Your task to perform on an android device: turn off picture-in-picture Image 0: 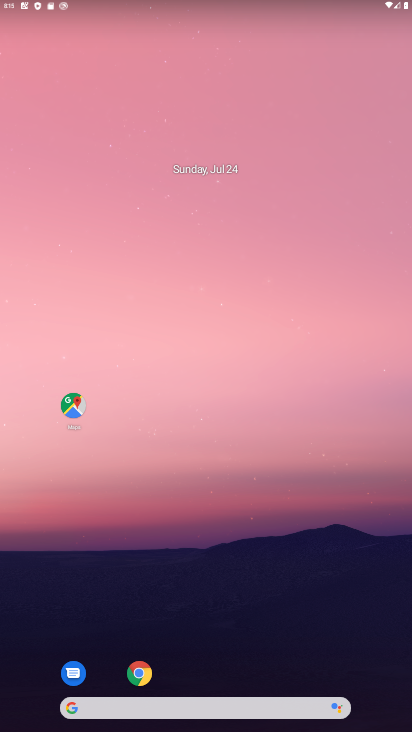
Step 0: drag from (191, 638) to (191, 293)
Your task to perform on an android device: turn off picture-in-picture Image 1: 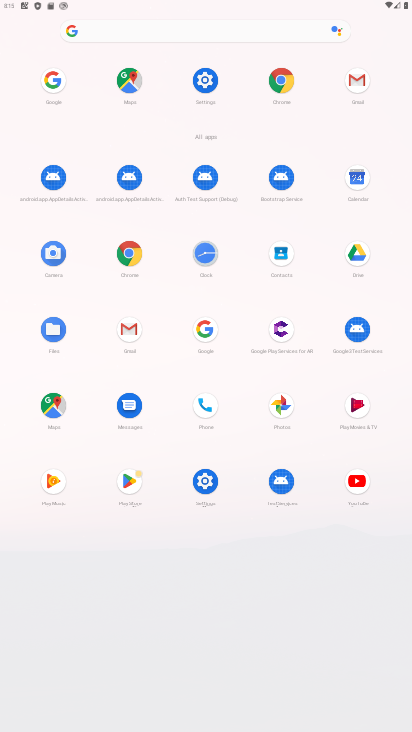
Step 1: click (201, 482)
Your task to perform on an android device: turn off picture-in-picture Image 2: 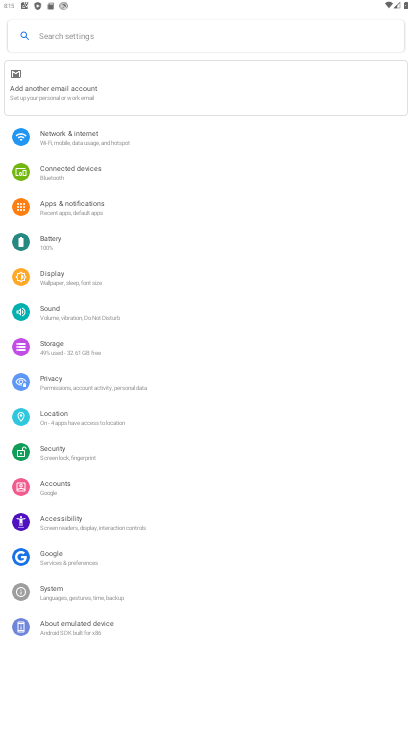
Step 2: click (67, 207)
Your task to perform on an android device: turn off picture-in-picture Image 3: 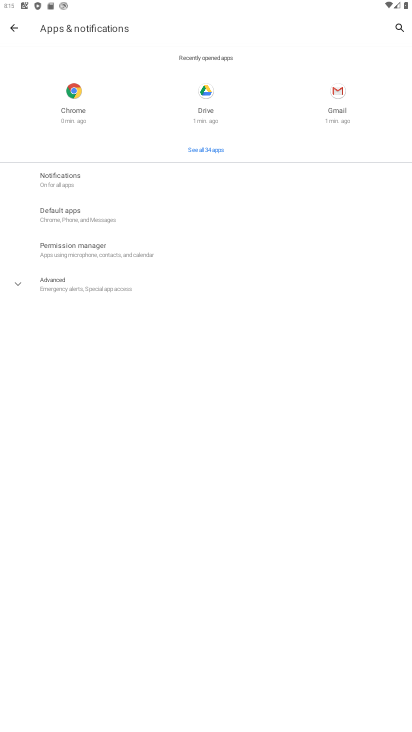
Step 3: click (47, 278)
Your task to perform on an android device: turn off picture-in-picture Image 4: 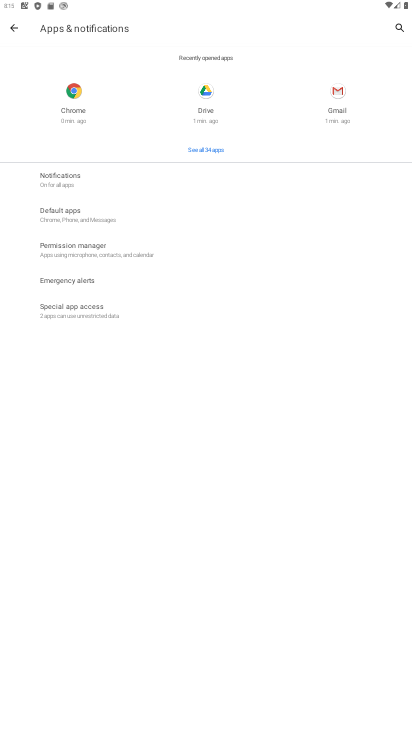
Step 4: click (58, 320)
Your task to perform on an android device: turn off picture-in-picture Image 5: 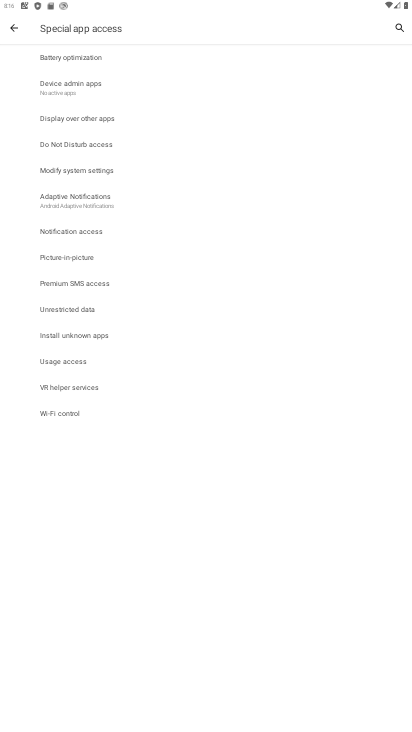
Step 5: click (60, 257)
Your task to perform on an android device: turn off picture-in-picture Image 6: 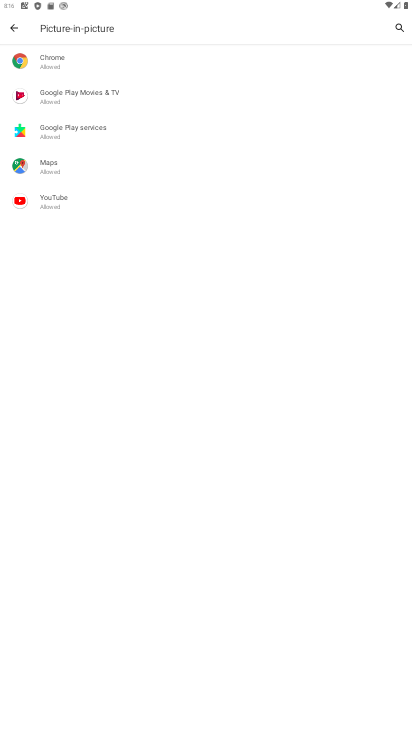
Step 6: click (49, 51)
Your task to perform on an android device: turn off picture-in-picture Image 7: 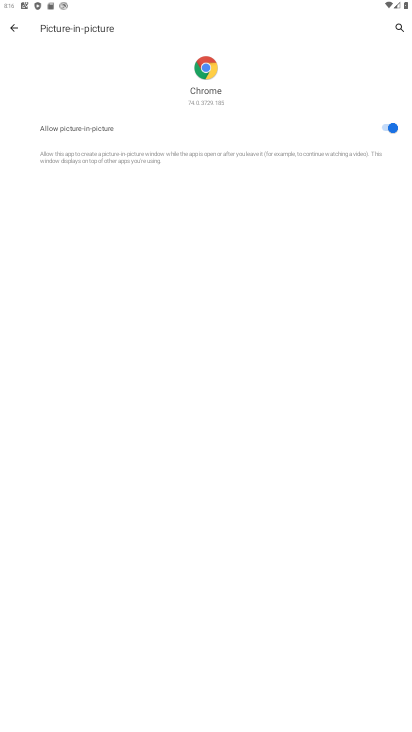
Step 7: click (392, 123)
Your task to perform on an android device: turn off picture-in-picture Image 8: 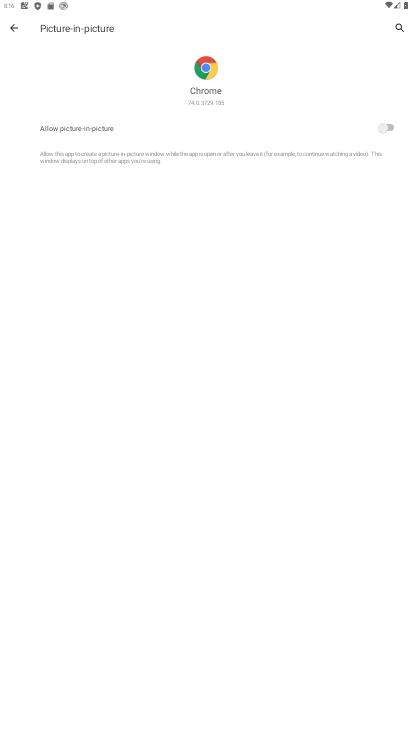
Step 8: task complete